Your task to perform on an android device: show emergency info Image 0: 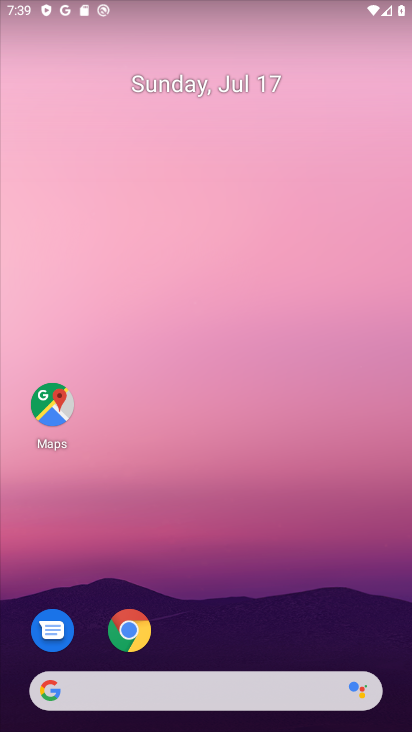
Step 0: drag from (250, 561) to (162, 24)
Your task to perform on an android device: show emergency info Image 1: 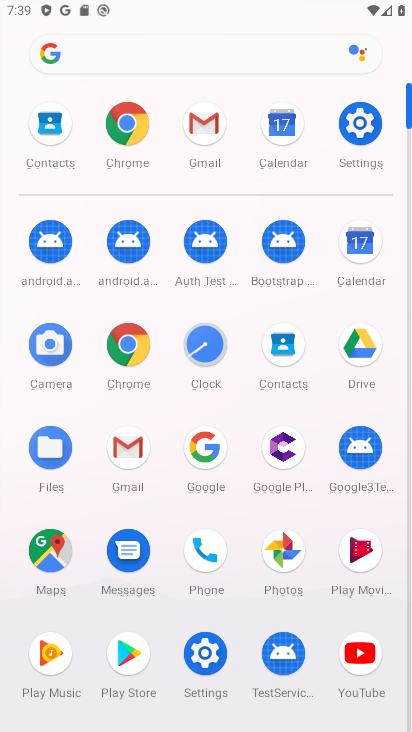
Step 1: click (356, 128)
Your task to perform on an android device: show emergency info Image 2: 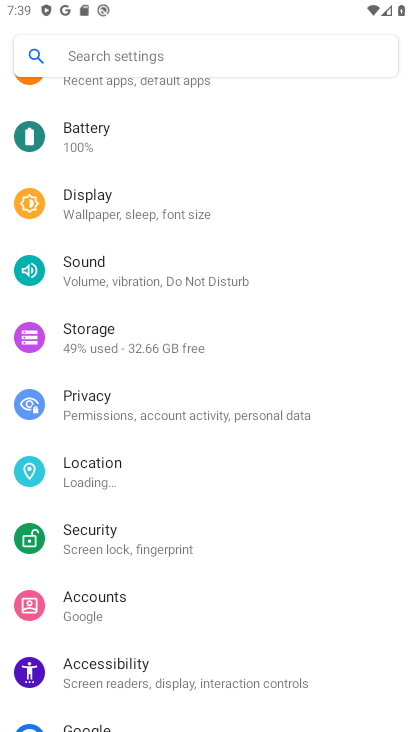
Step 2: drag from (159, 452) to (249, 0)
Your task to perform on an android device: show emergency info Image 3: 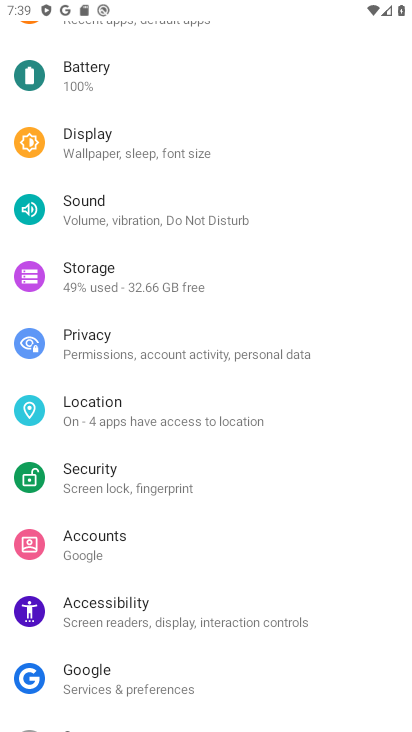
Step 3: drag from (113, 681) to (193, 352)
Your task to perform on an android device: show emergency info Image 4: 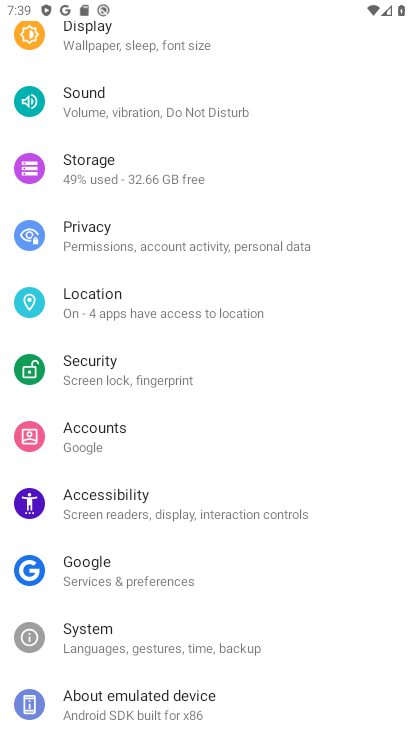
Step 4: click (100, 705)
Your task to perform on an android device: show emergency info Image 5: 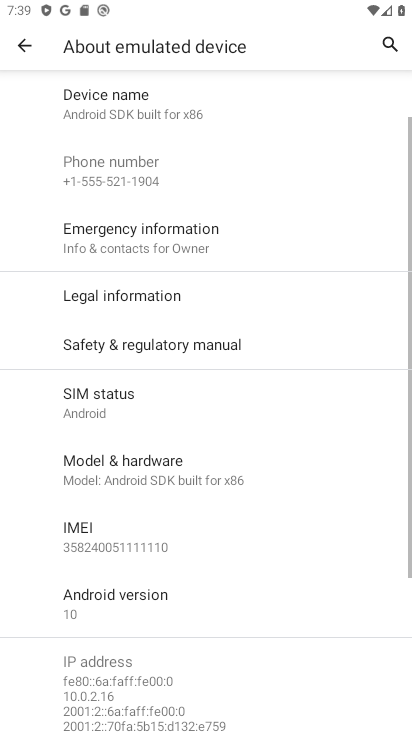
Step 5: click (180, 246)
Your task to perform on an android device: show emergency info Image 6: 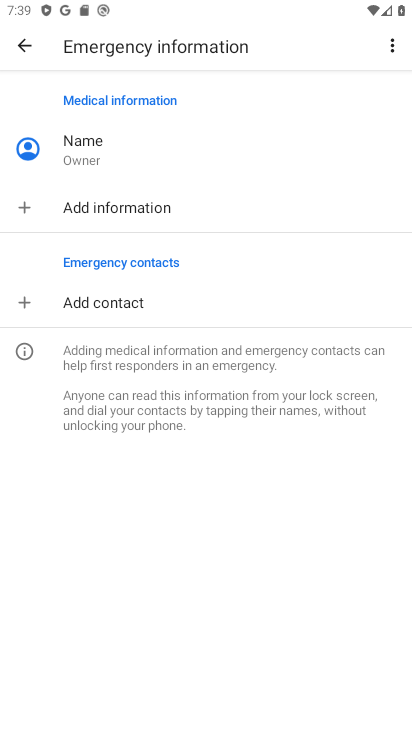
Step 6: task complete